Your task to perform on an android device: Search for Italian restaurants on Maps Image 0: 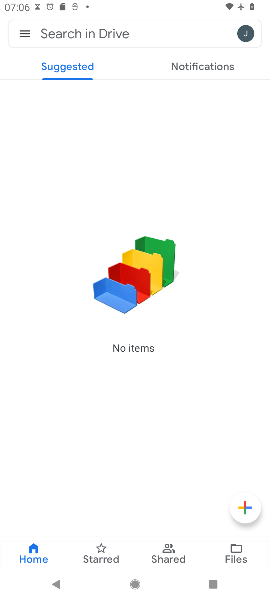
Step 0: press home button
Your task to perform on an android device: Search for Italian restaurants on Maps Image 1: 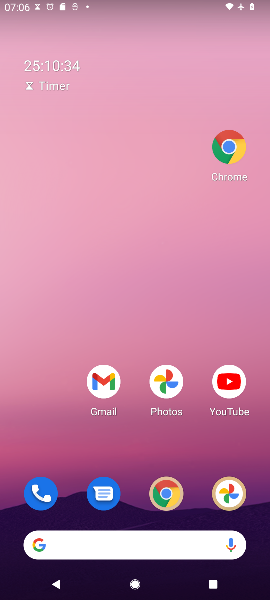
Step 1: drag from (60, 443) to (80, 40)
Your task to perform on an android device: Search for Italian restaurants on Maps Image 2: 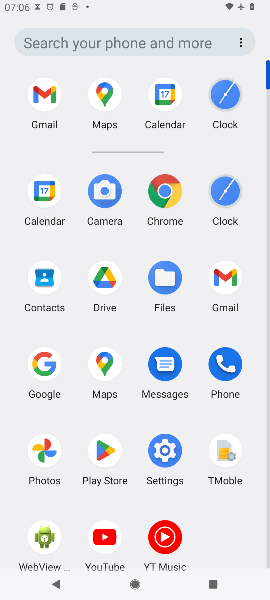
Step 2: click (108, 97)
Your task to perform on an android device: Search for Italian restaurants on Maps Image 3: 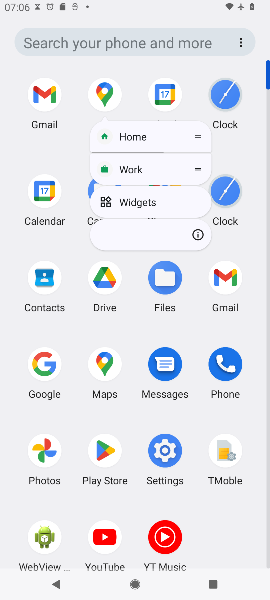
Step 3: click (110, 97)
Your task to perform on an android device: Search for Italian restaurants on Maps Image 4: 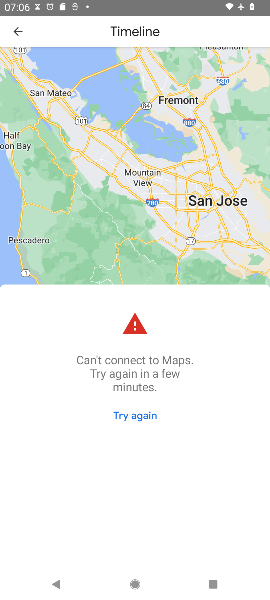
Step 4: press back button
Your task to perform on an android device: Search for Italian restaurants on Maps Image 5: 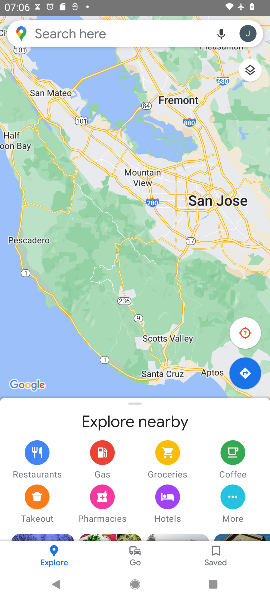
Step 5: click (99, 38)
Your task to perform on an android device: Search for Italian restaurants on Maps Image 6: 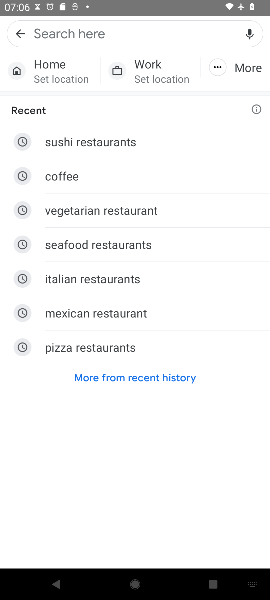
Step 6: type " Italian restaurants"
Your task to perform on an android device: Search for Italian restaurants on Maps Image 7: 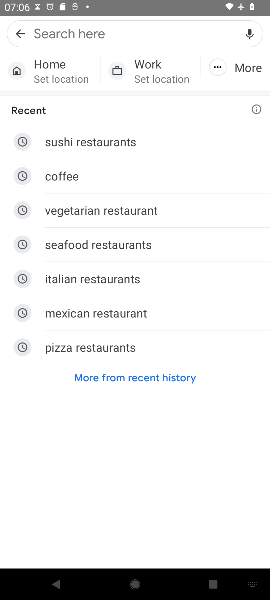
Step 7: click (81, 31)
Your task to perform on an android device: Search for Italian restaurants on Maps Image 8: 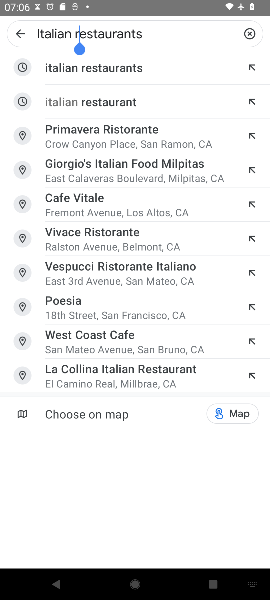
Step 8: click (105, 68)
Your task to perform on an android device: Search for Italian restaurants on Maps Image 9: 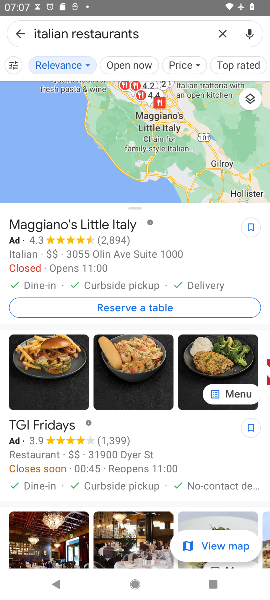
Step 9: task complete